Your task to perform on an android device: change the upload size in google photos Image 0: 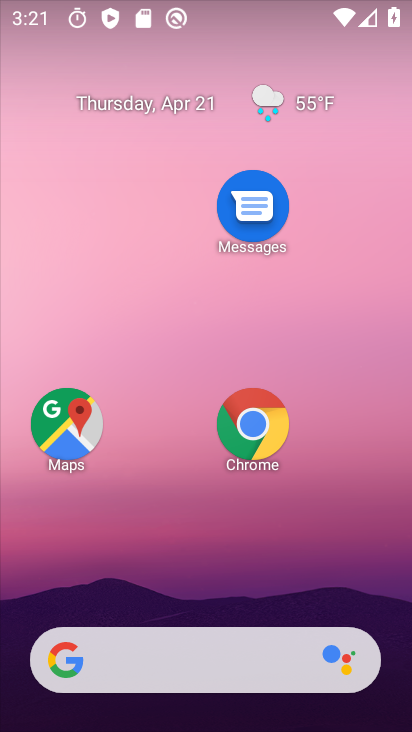
Step 0: drag from (194, 432) to (199, 183)
Your task to perform on an android device: change the upload size in google photos Image 1: 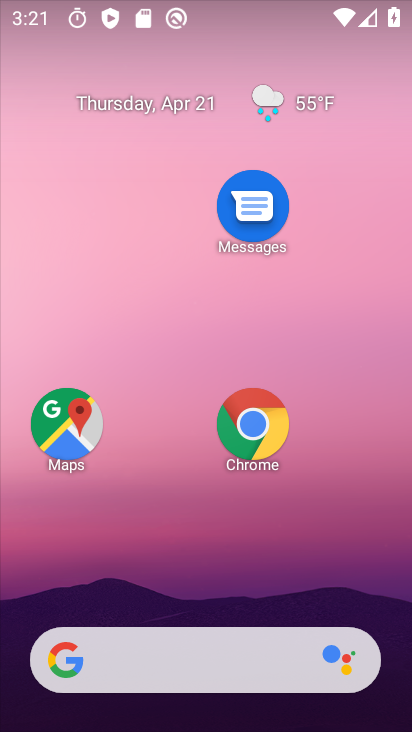
Step 1: drag from (195, 474) to (212, 6)
Your task to perform on an android device: change the upload size in google photos Image 2: 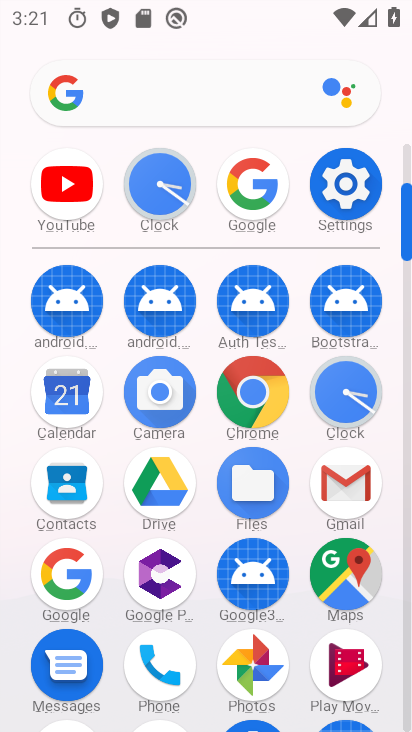
Step 2: click (253, 668)
Your task to perform on an android device: change the upload size in google photos Image 3: 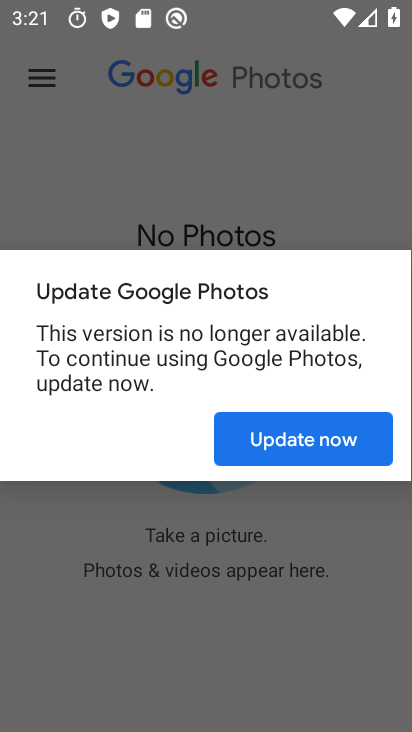
Step 3: click (288, 445)
Your task to perform on an android device: change the upload size in google photos Image 4: 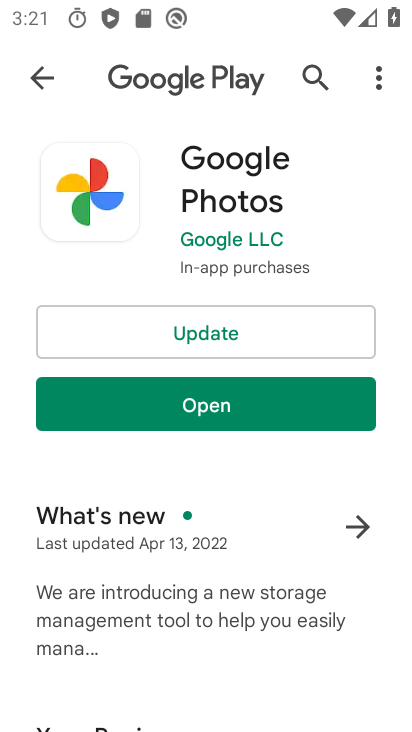
Step 4: click (203, 414)
Your task to perform on an android device: change the upload size in google photos Image 5: 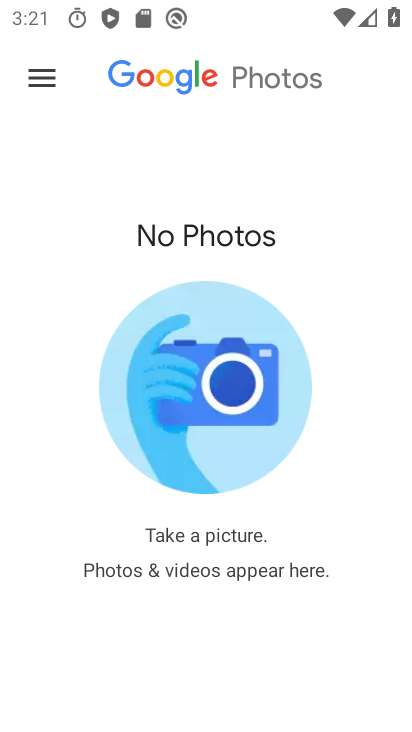
Step 5: click (42, 83)
Your task to perform on an android device: change the upload size in google photos Image 6: 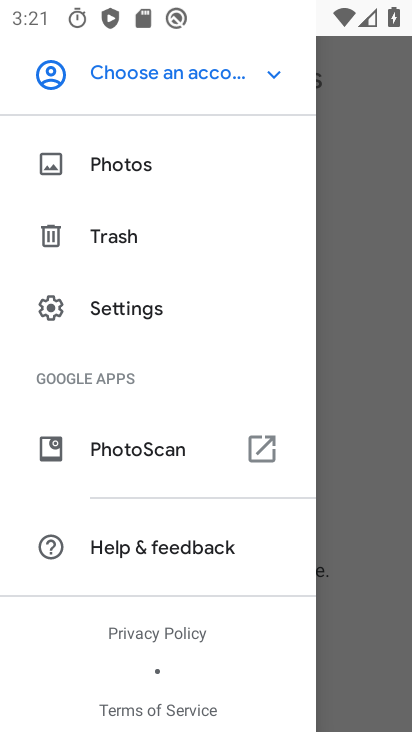
Step 6: click (131, 305)
Your task to perform on an android device: change the upload size in google photos Image 7: 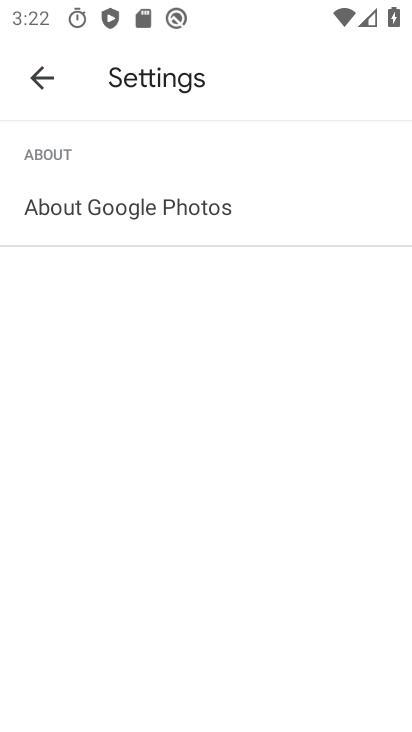
Step 7: press back button
Your task to perform on an android device: change the upload size in google photos Image 8: 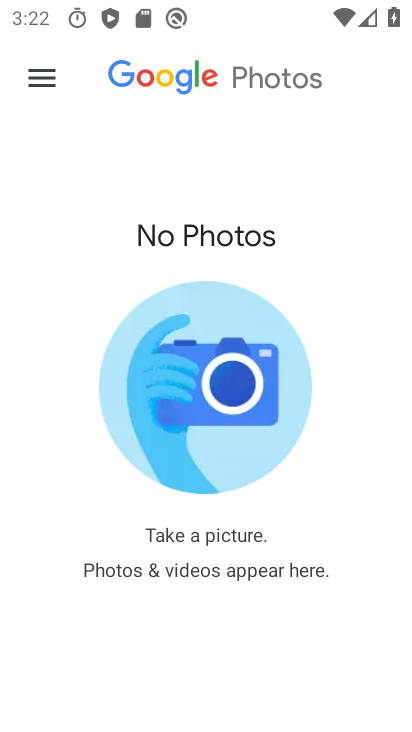
Step 8: click (50, 74)
Your task to perform on an android device: change the upload size in google photos Image 9: 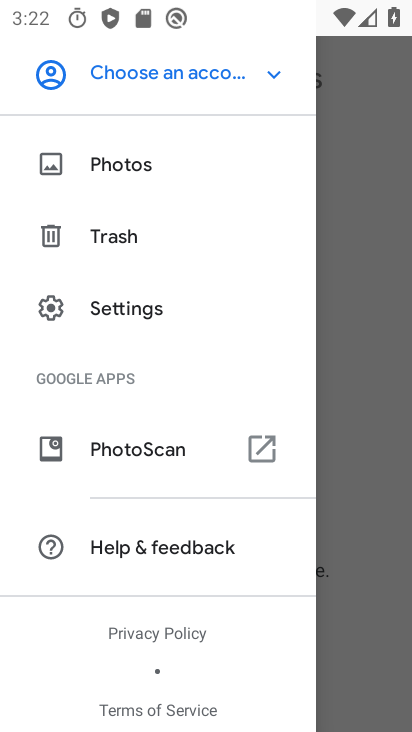
Step 9: click (101, 314)
Your task to perform on an android device: change the upload size in google photos Image 10: 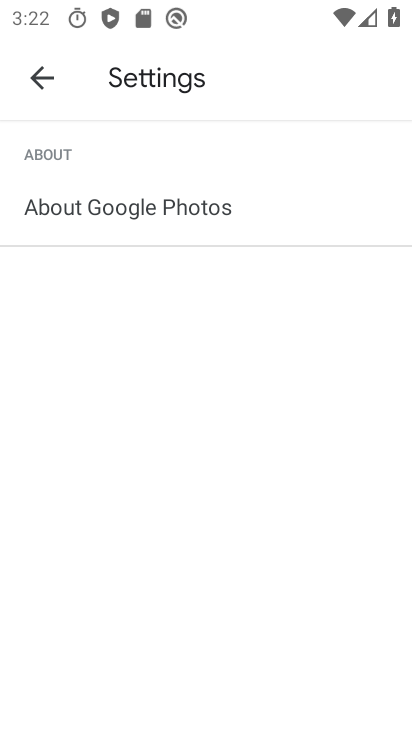
Step 10: click (105, 213)
Your task to perform on an android device: change the upload size in google photos Image 11: 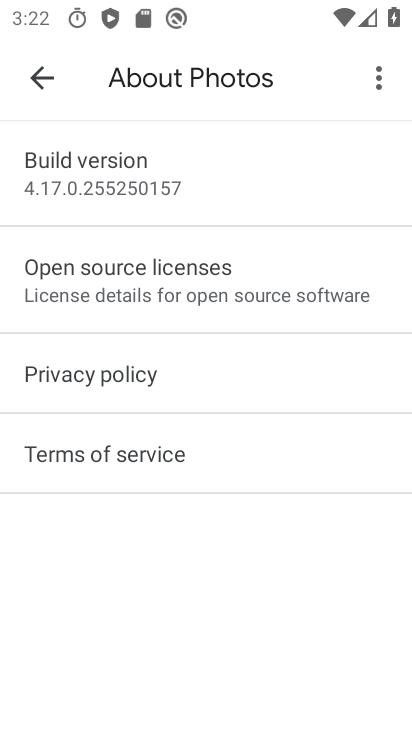
Step 11: task complete